Your task to perform on an android device: star an email in the gmail app Image 0: 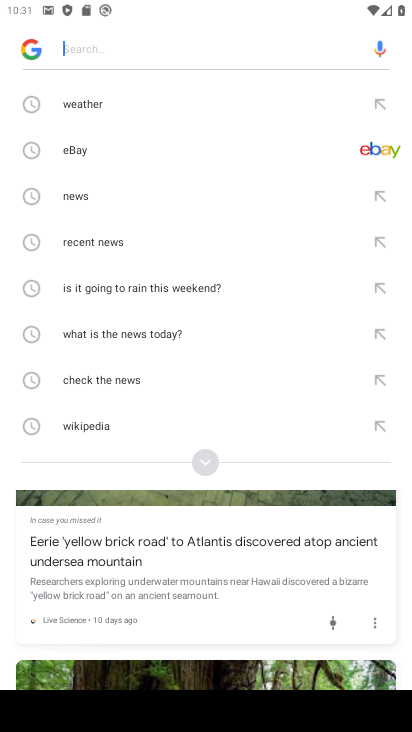
Step 0: press back button
Your task to perform on an android device: star an email in the gmail app Image 1: 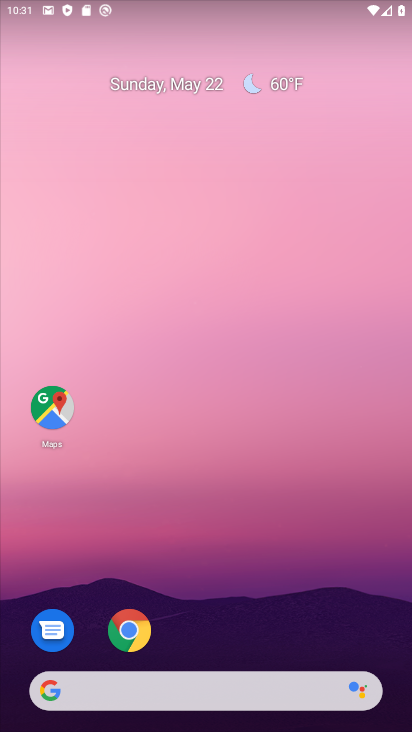
Step 1: drag from (224, 614) to (215, 78)
Your task to perform on an android device: star an email in the gmail app Image 2: 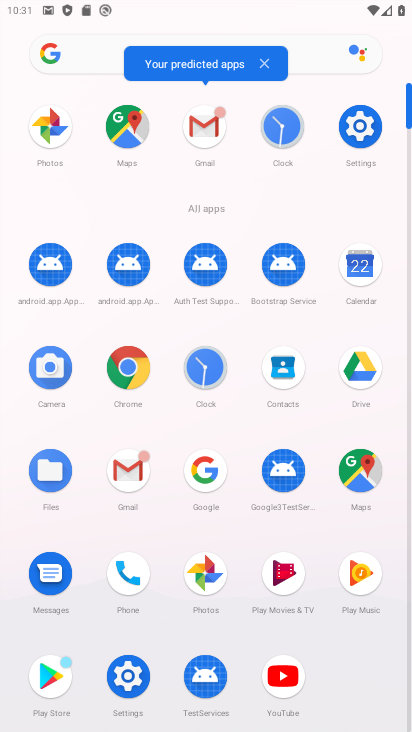
Step 2: click (203, 127)
Your task to perform on an android device: star an email in the gmail app Image 3: 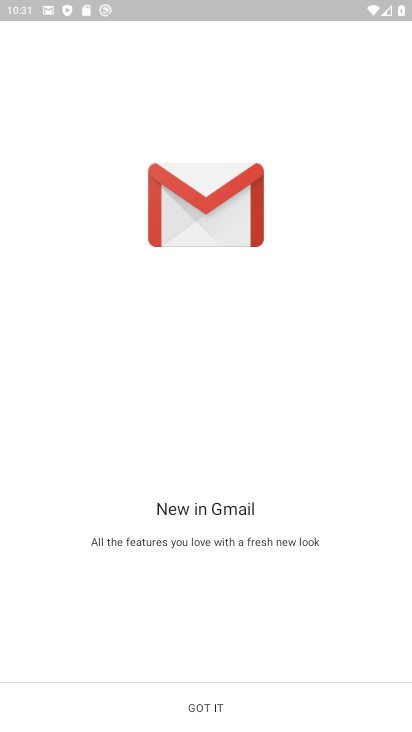
Step 3: click (197, 707)
Your task to perform on an android device: star an email in the gmail app Image 4: 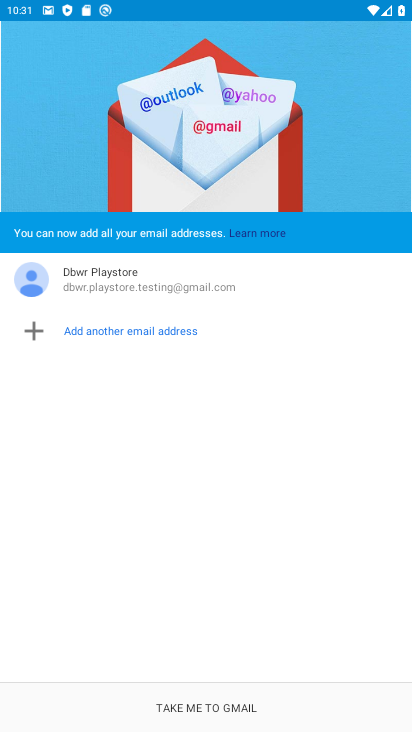
Step 4: click (197, 707)
Your task to perform on an android device: star an email in the gmail app Image 5: 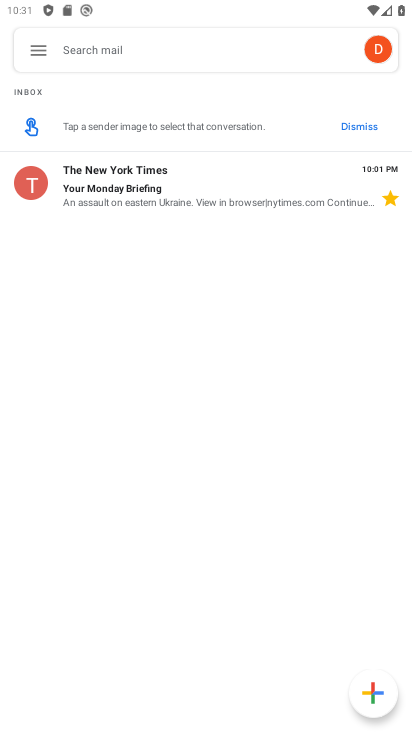
Step 5: click (334, 205)
Your task to perform on an android device: star an email in the gmail app Image 6: 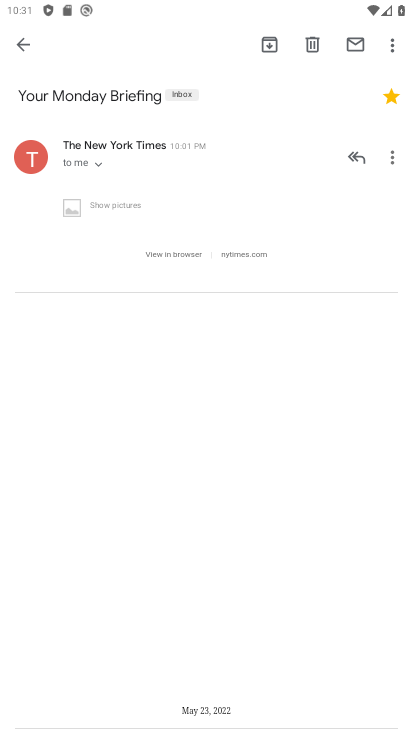
Step 6: click (394, 99)
Your task to perform on an android device: star an email in the gmail app Image 7: 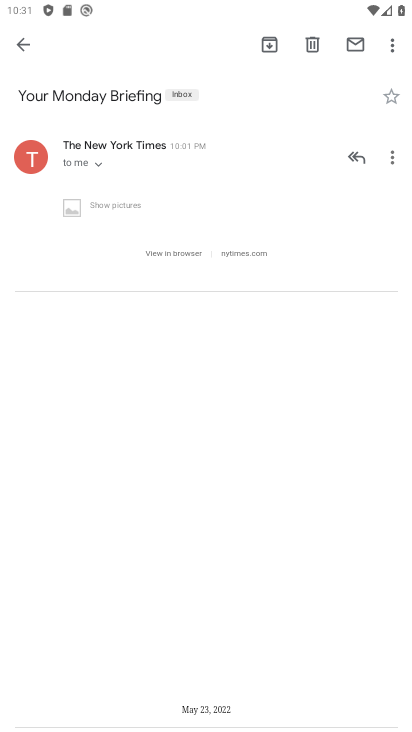
Step 7: click (394, 99)
Your task to perform on an android device: star an email in the gmail app Image 8: 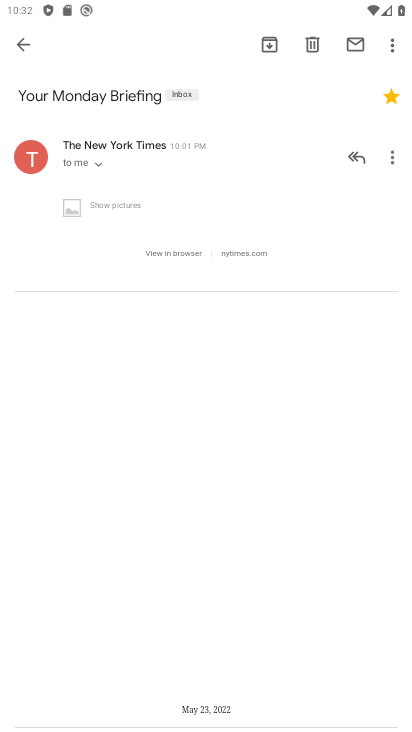
Step 8: task complete